Your task to perform on an android device: turn notification dots off Image 0: 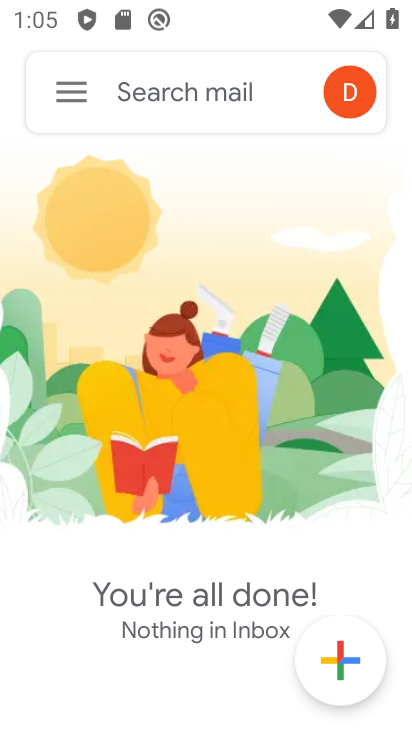
Step 0: press home button
Your task to perform on an android device: turn notification dots off Image 1: 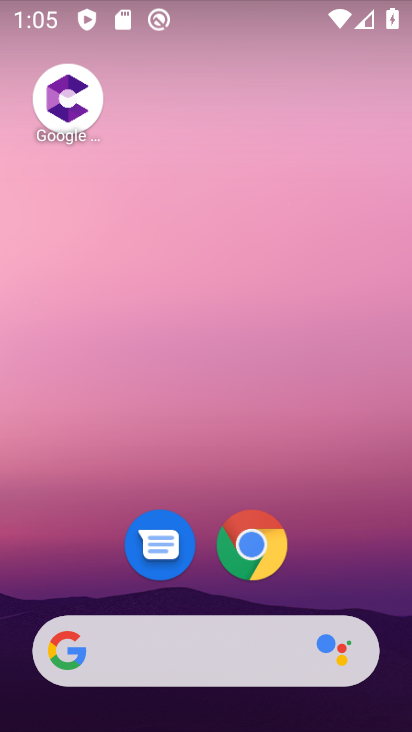
Step 1: drag from (398, 636) to (303, 75)
Your task to perform on an android device: turn notification dots off Image 2: 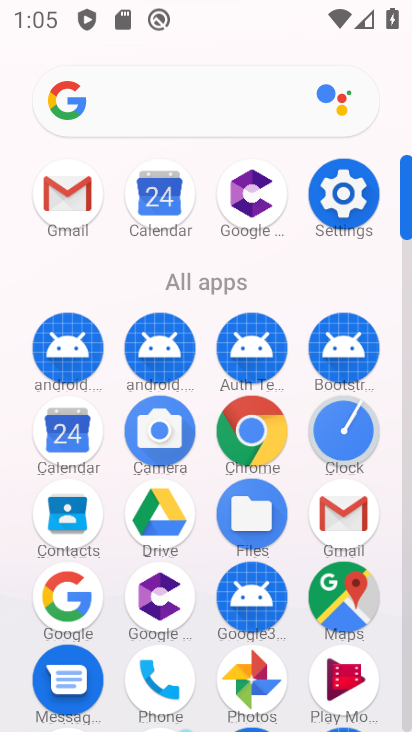
Step 2: click (407, 696)
Your task to perform on an android device: turn notification dots off Image 3: 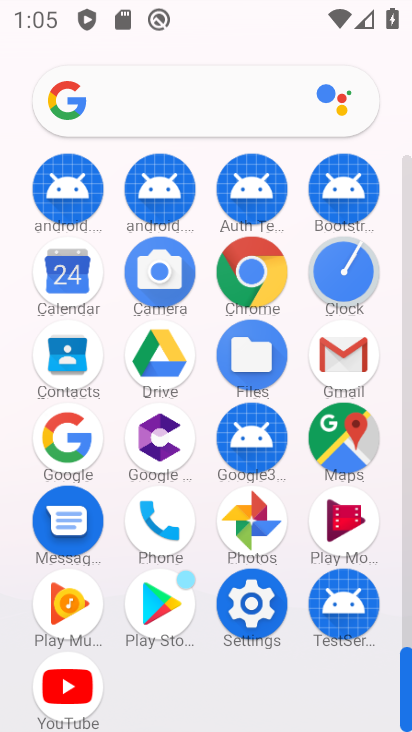
Step 3: click (249, 602)
Your task to perform on an android device: turn notification dots off Image 4: 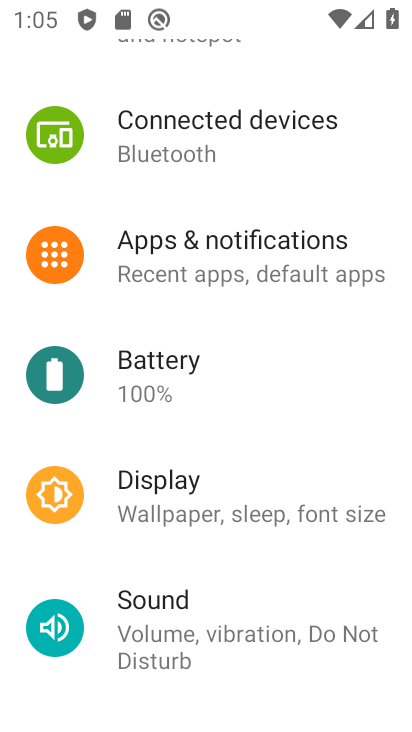
Step 4: click (207, 246)
Your task to perform on an android device: turn notification dots off Image 5: 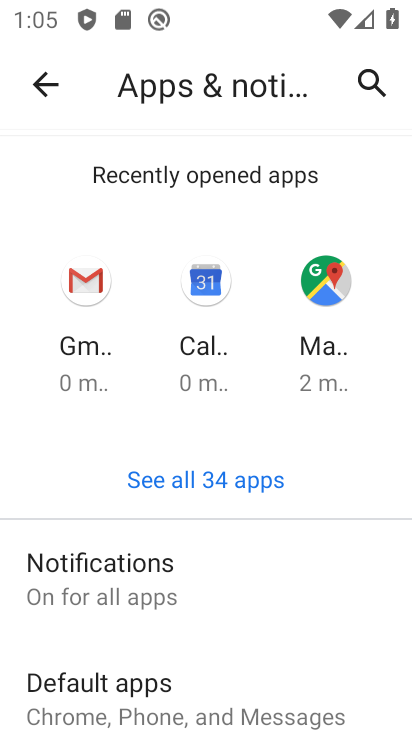
Step 5: click (132, 578)
Your task to perform on an android device: turn notification dots off Image 6: 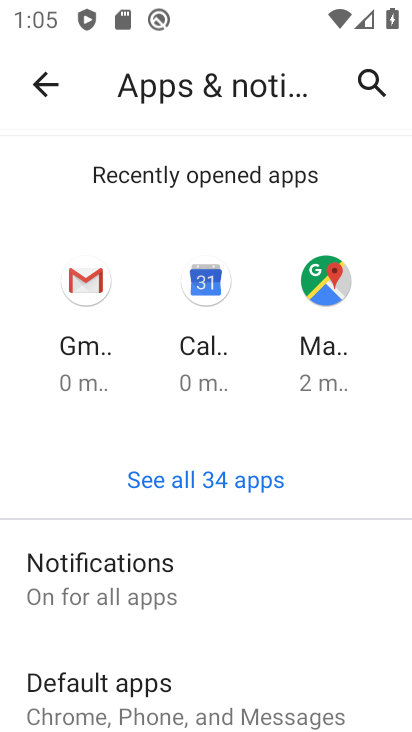
Step 6: click (132, 578)
Your task to perform on an android device: turn notification dots off Image 7: 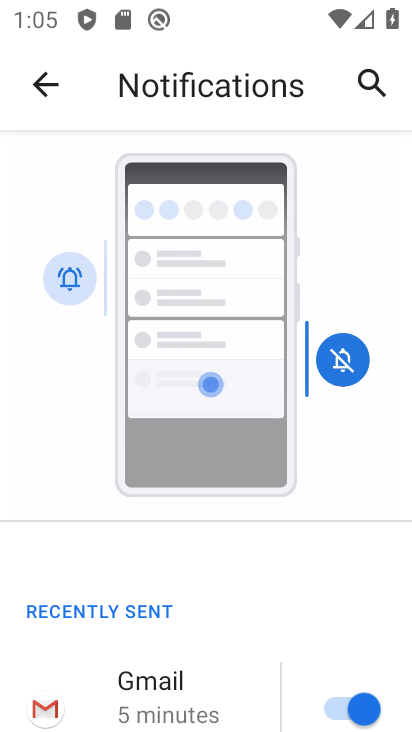
Step 7: drag from (314, 661) to (252, 141)
Your task to perform on an android device: turn notification dots off Image 8: 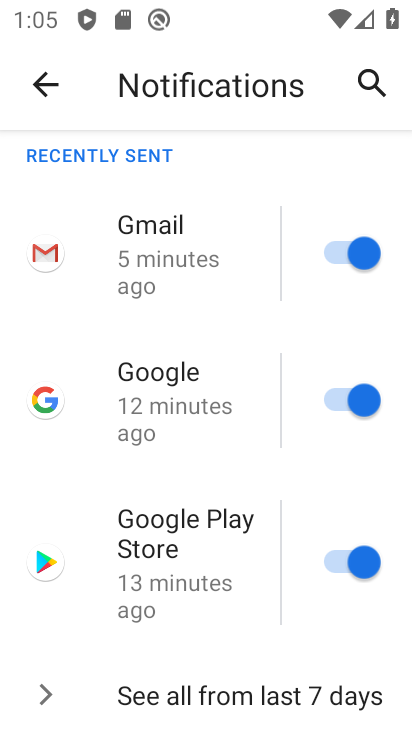
Step 8: drag from (283, 659) to (266, 266)
Your task to perform on an android device: turn notification dots off Image 9: 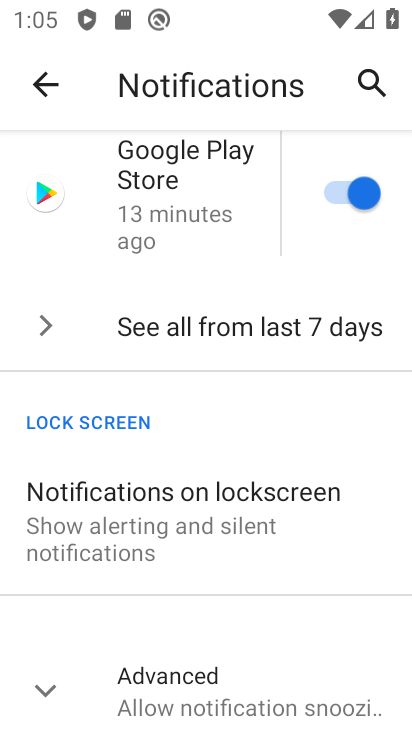
Step 9: click (47, 703)
Your task to perform on an android device: turn notification dots off Image 10: 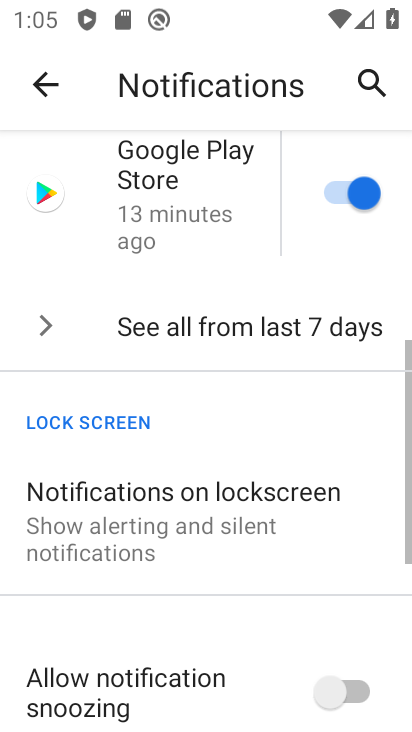
Step 10: drag from (286, 646) to (263, 130)
Your task to perform on an android device: turn notification dots off Image 11: 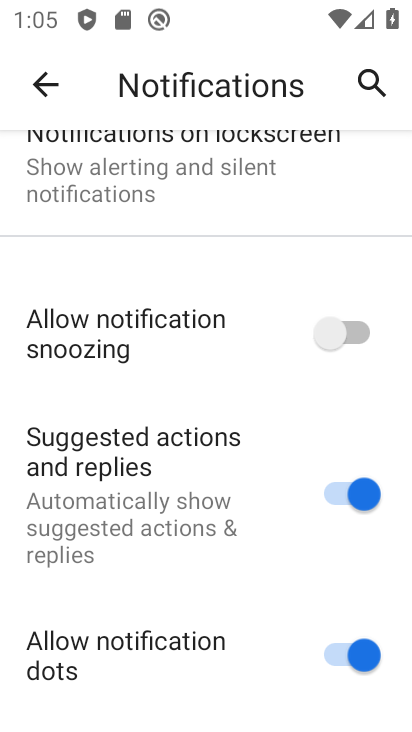
Step 11: click (337, 654)
Your task to perform on an android device: turn notification dots off Image 12: 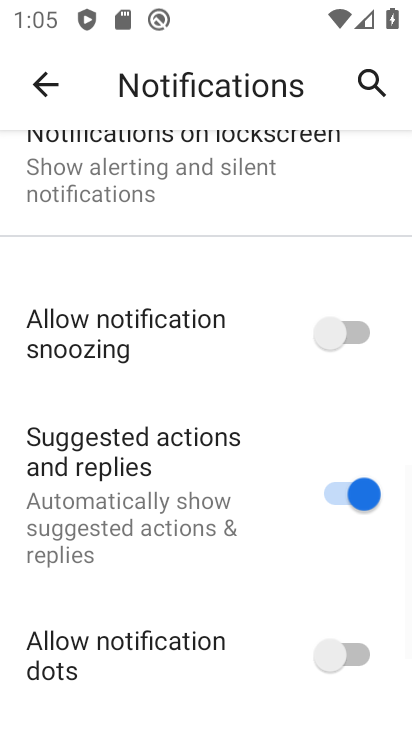
Step 12: task complete